Your task to perform on an android device: manage bookmarks in the chrome app Image 0: 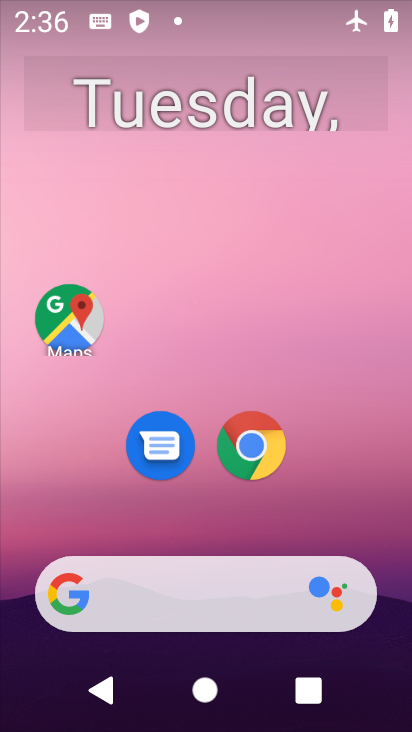
Step 0: click (258, 444)
Your task to perform on an android device: manage bookmarks in the chrome app Image 1: 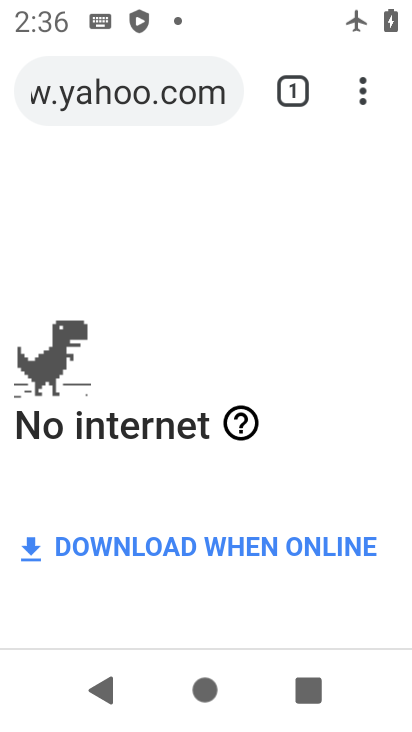
Step 1: click (360, 86)
Your task to perform on an android device: manage bookmarks in the chrome app Image 2: 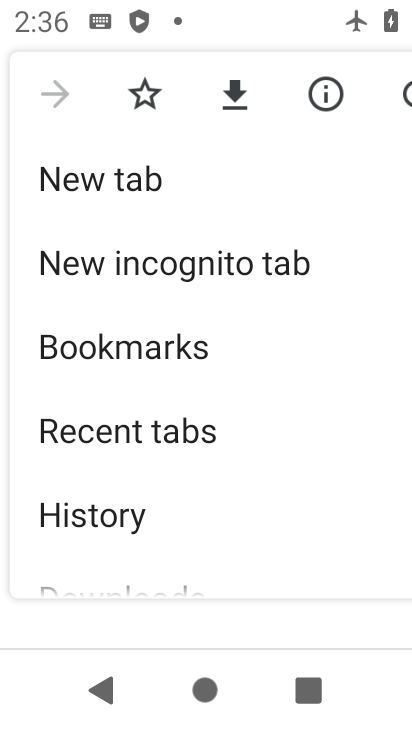
Step 2: click (163, 353)
Your task to perform on an android device: manage bookmarks in the chrome app Image 3: 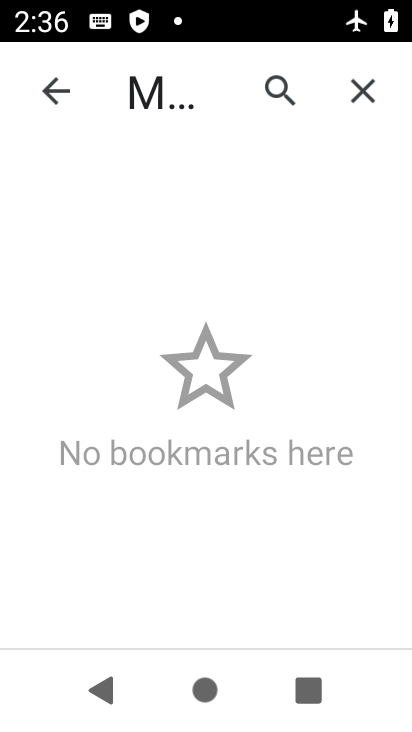
Step 3: task complete